Your task to perform on an android device: turn off priority inbox in the gmail app Image 0: 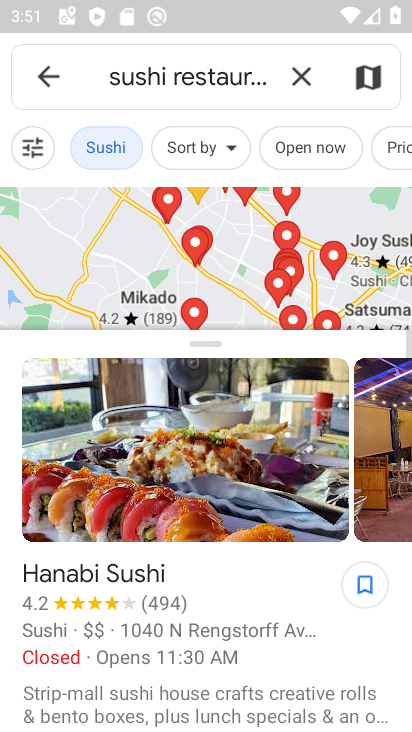
Step 0: press home button
Your task to perform on an android device: turn off priority inbox in the gmail app Image 1: 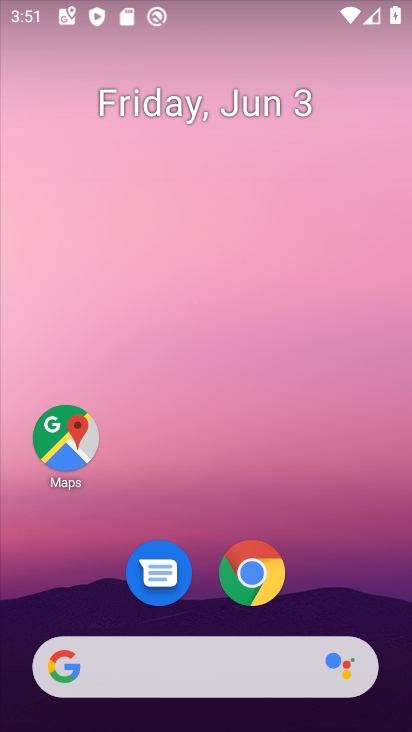
Step 1: drag from (394, 711) to (327, 119)
Your task to perform on an android device: turn off priority inbox in the gmail app Image 2: 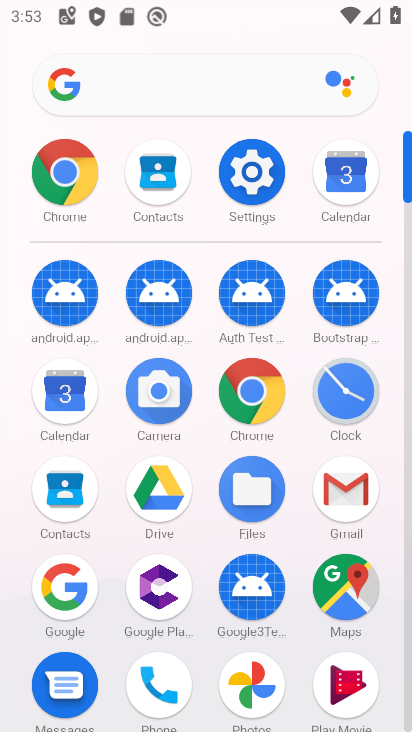
Step 2: click (352, 468)
Your task to perform on an android device: turn off priority inbox in the gmail app Image 3: 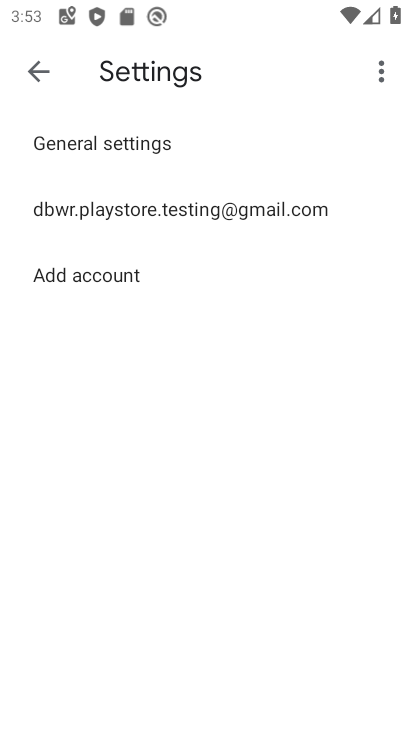
Step 3: click (83, 202)
Your task to perform on an android device: turn off priority inbox in the gmail app Image 4: 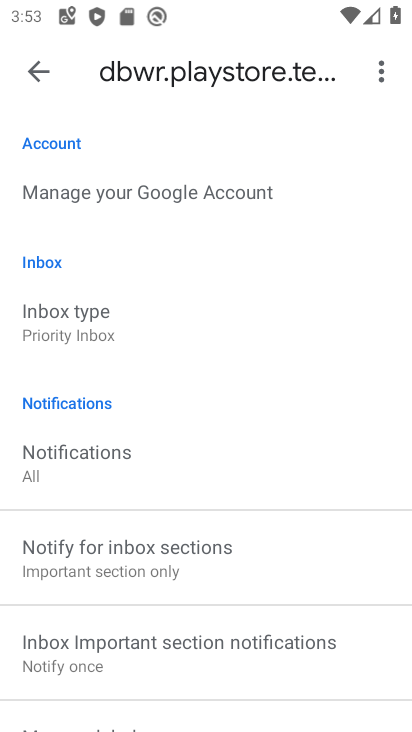
Step 4: click (75, 324)
Your task to perform on an android device: turn off priority inbox in the gmail app Image 5: 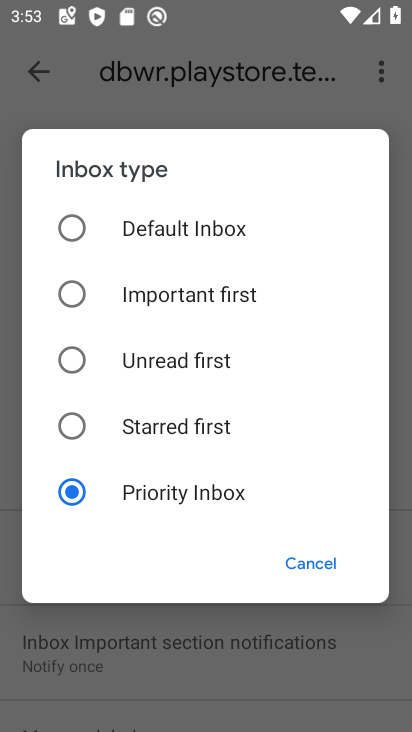
Step 5: click (70, 225)
Your task to perform on an android device: turn off priority inbox in the gmail app Image 6: 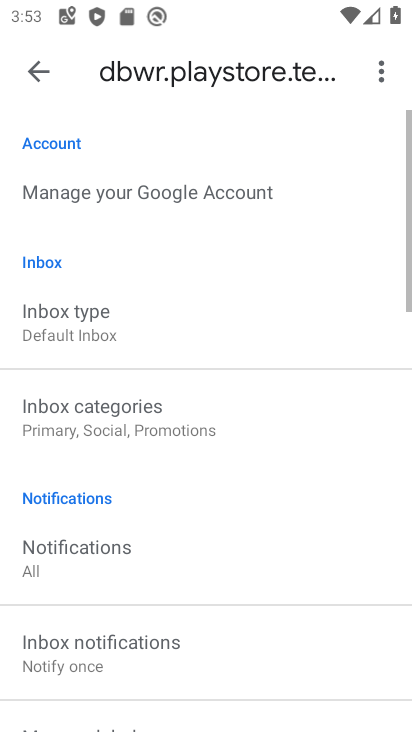
Step 6: task complete